Your task to perform on an android device: allow cookies in the chrome app Image 0: 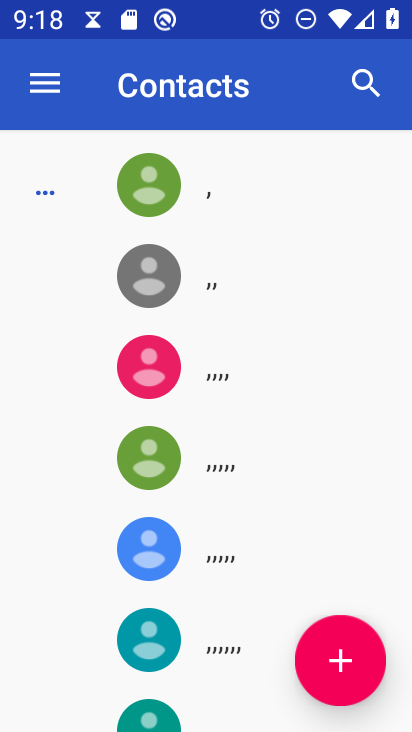
Step 0: press home button
Your task to perform on an android device: allow cookies in the chrome app Image 1: 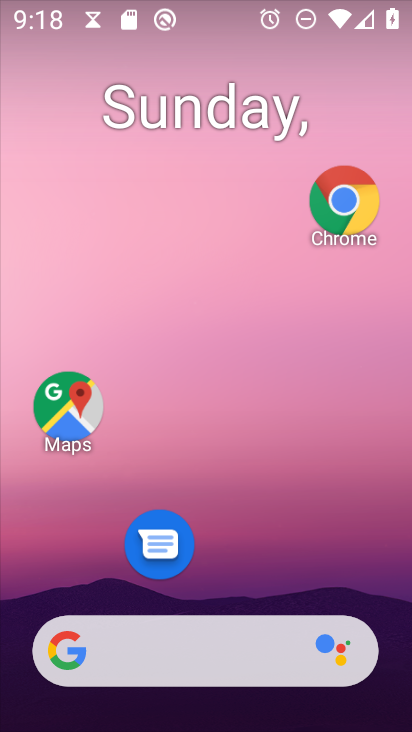
Step 1: click (346, 215)
Your task to perform on an android device: allow cookies in the chrome app Image 2: 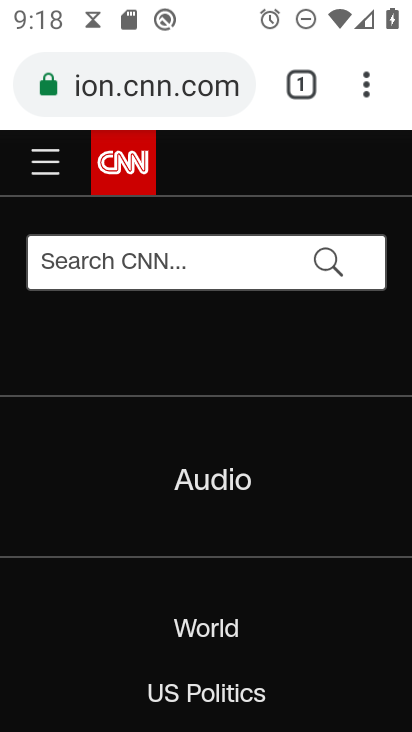
Step 2: click (353, 73)
Your task to perform on an android device: allow cookies in the chrome app Image 3: 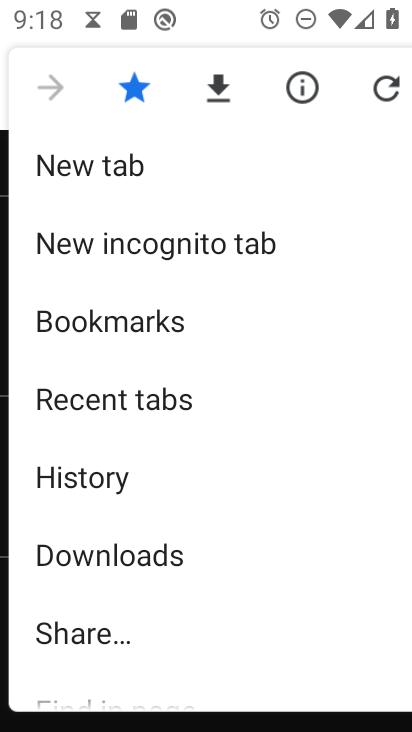
Step 3: drag from (181, 641) to (258, 385)
Your task to perform on an android device: allow cookies in the chrome app Image 4: 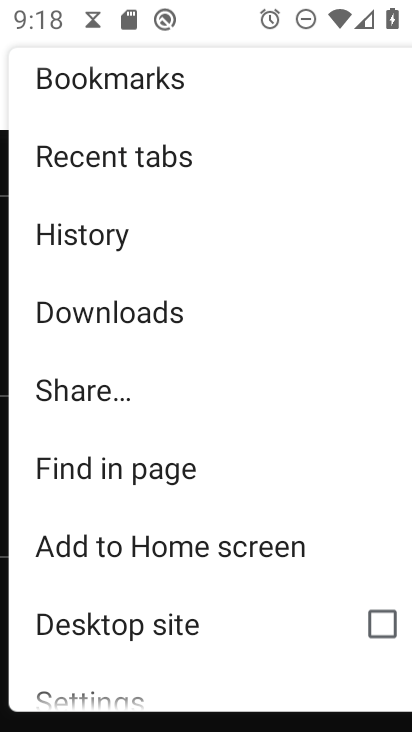
Step 4: drag from (211, 659) to (278, 458)
Your task to perform on an android device: allow cookies in the chrome app Image 5: 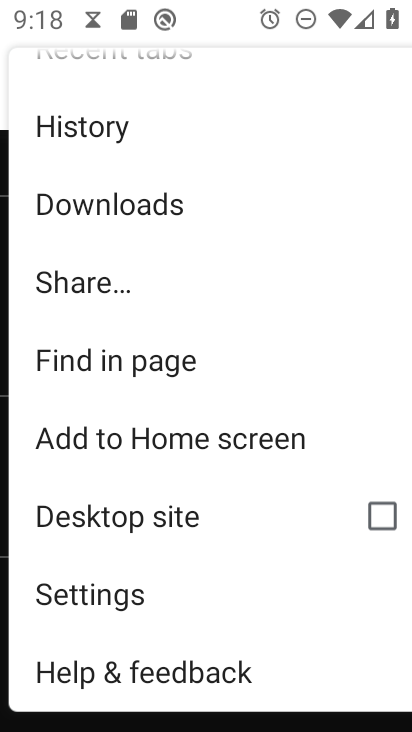
Step 5: click (127, 610)
Your task to perform on an android device: allow cookies in the chrome app Image 6: 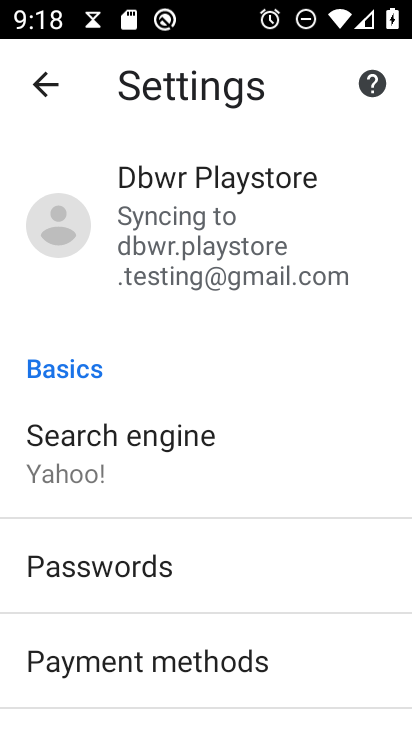
Step 6: drag from (119, 659) to (231, 293)
Your task to perform on an android device: allow cookies in the chrome app Image 7: 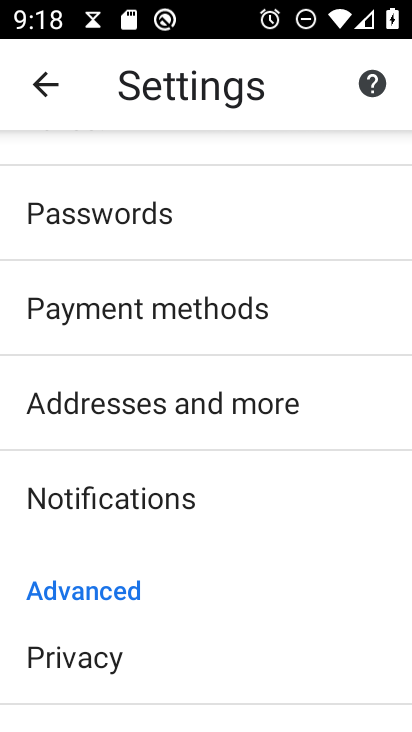
Step 7: drag from (162, 620) to (231, 277)
Your task to perform on an android device: allow cookies in the chrome app Image 8: 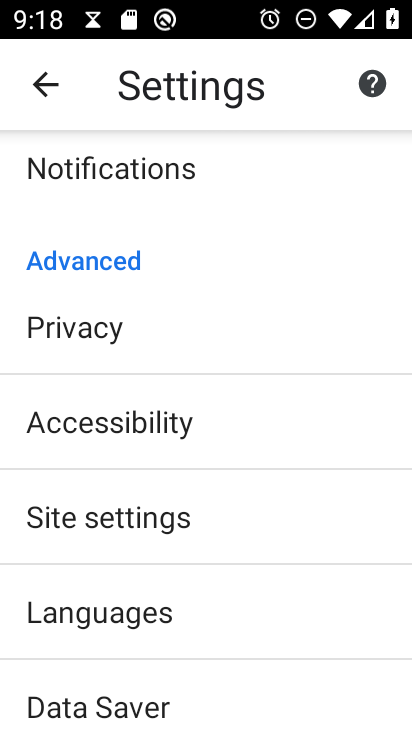
Step 8: click (163, 530)
Your task to perform on an android device: allow cookies in the chrome app Image 9: 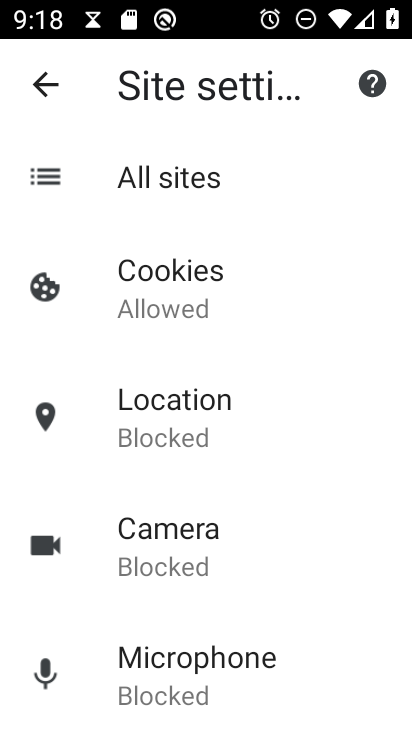
Step 9: drag from (220, 668) to (238, 614)
Your task to perform on an android device: allow cookies in the chrome app Image 10: 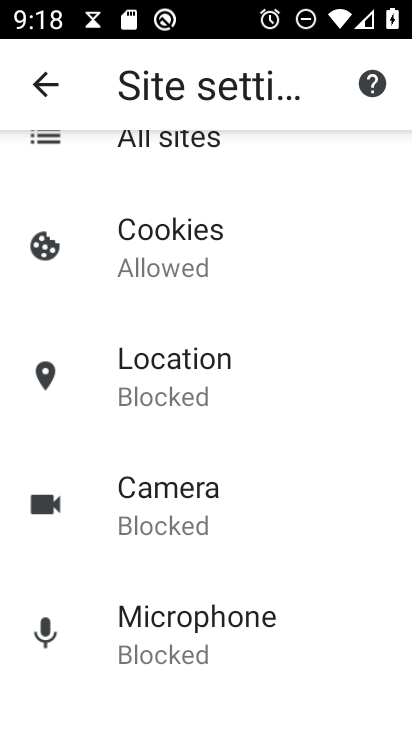
Step 10: click (283, 249)
Your task to perform on an android device: allow cookies in the chrome app Image 11: 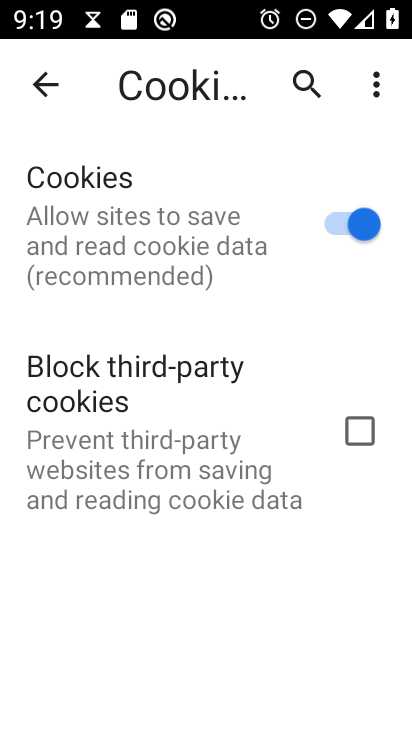
Step 11: task complete